Your task to perform on an android device: toggle sleep mode Image 0: 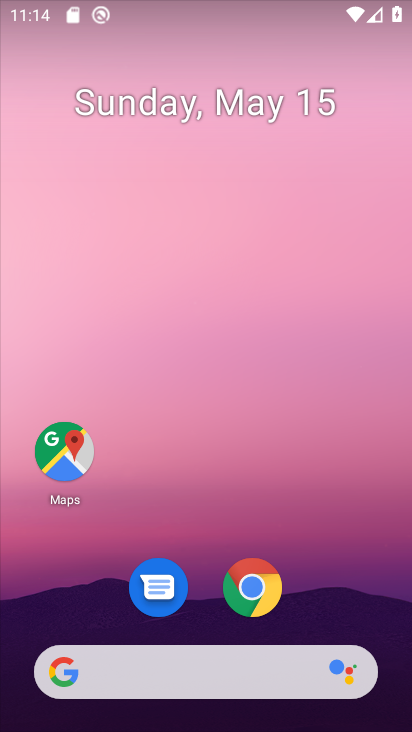
Step 0: drag from (195, 621) to (210, 233)
Your task to perform on an android device: toggle sleep mode Image 1: 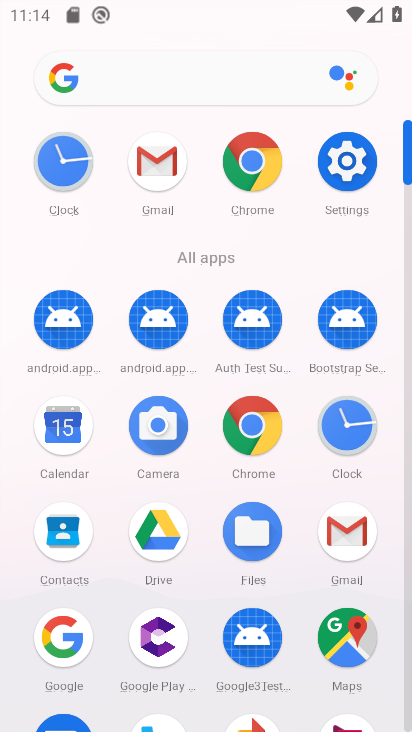
Step 1: click (339, 165)
Your task to perform on an android device: toggle sleep mode Image 2: 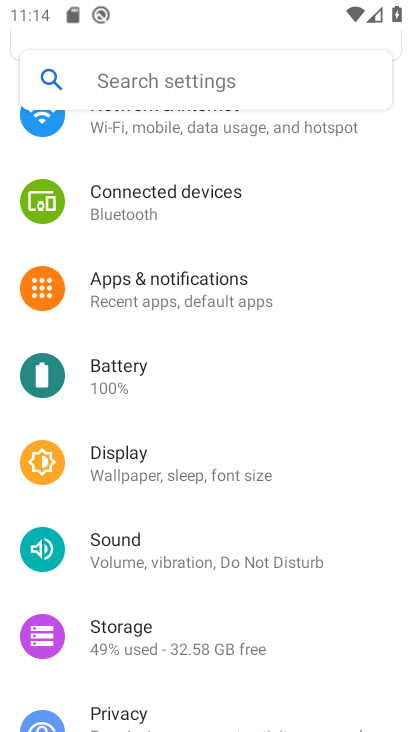
Step 2: drag from (234, 217) to (264, 276)
Your task to perform on an android device: toggle sleep mode Image 3: 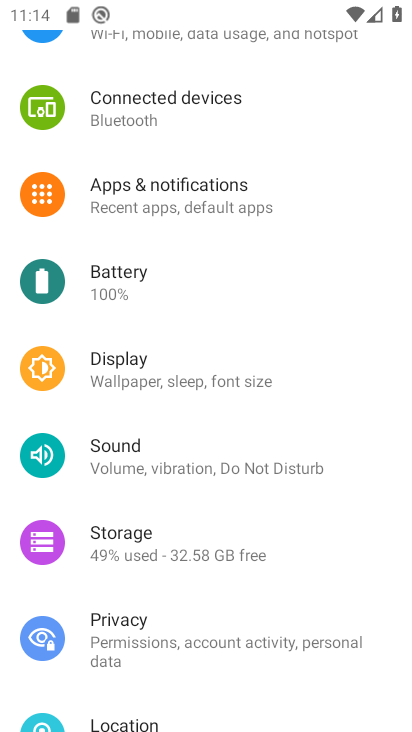
Step 3: click (184, 373)
Your task to perform on an android device: toggle sleep mode Image 4: 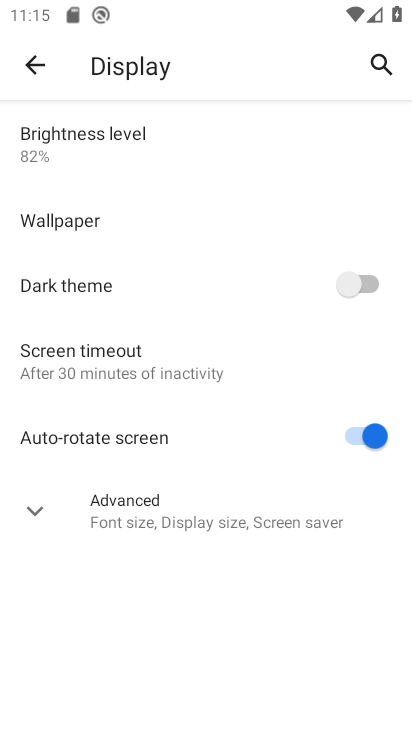
Step 4: click (158, 515)
Your task to perform on an android device: toggle sleep mode Image 5: 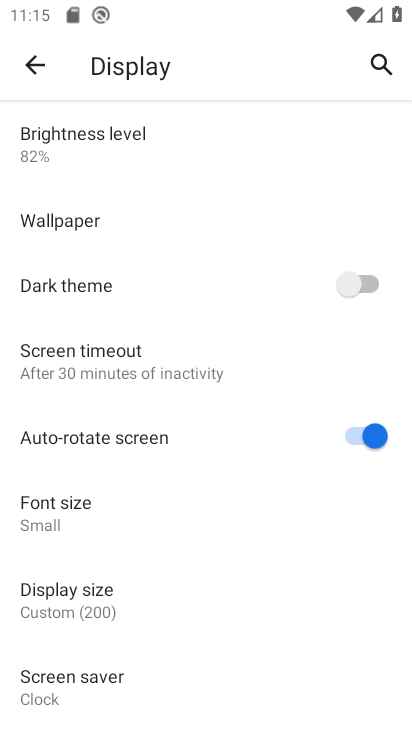
Step 5: drag from (154, 593) to (177, 407)
Your task to perform on an android device: toggle sleep mode Image 6: 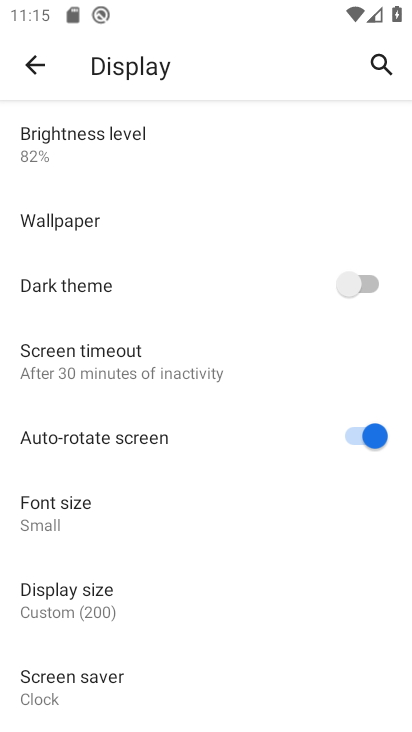
Step 6: click (109, 595)
Your task to perform on an android device: toggle sleep mode Image 7: 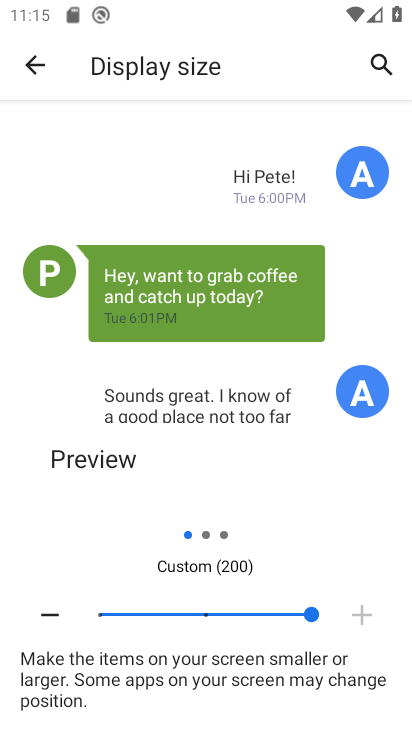
Step 7: press back button
Your task to perform on an android device: toggle sleep mode Image 8: 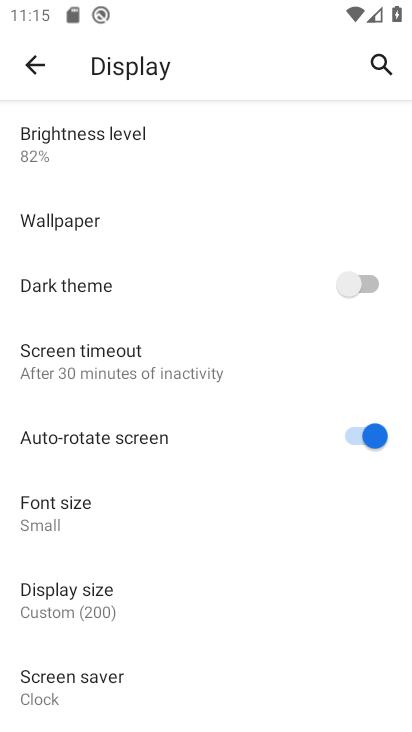
Step 8: drag from (169, 306) to (170, 521)
Your task to perform on an android device: toggle sleep mode Image 9: 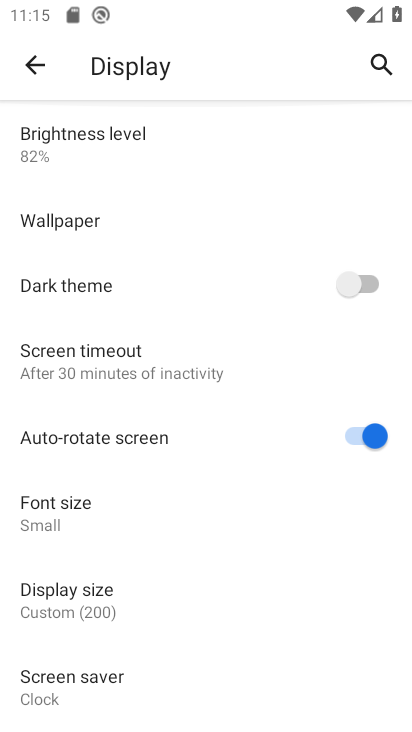
Step 9: drag from (174, 542) to (218, 338)
Your task to perform on an android device: toggle sleep mode Image 10: 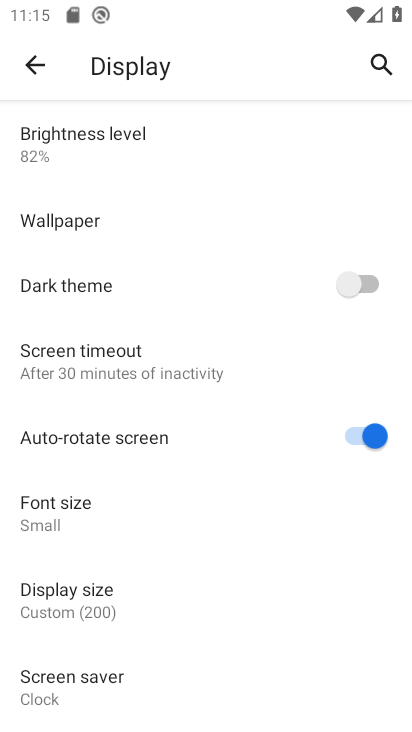
Step 10: click (84, 355)
Your task to perform on an android device: toggle sleep mode Image 11: 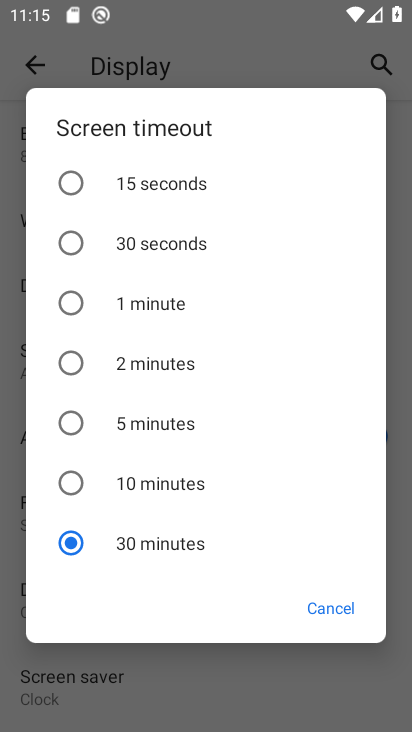
Step 11: task complete